Your task to perform on an android device: turn notification dots on Image 0: 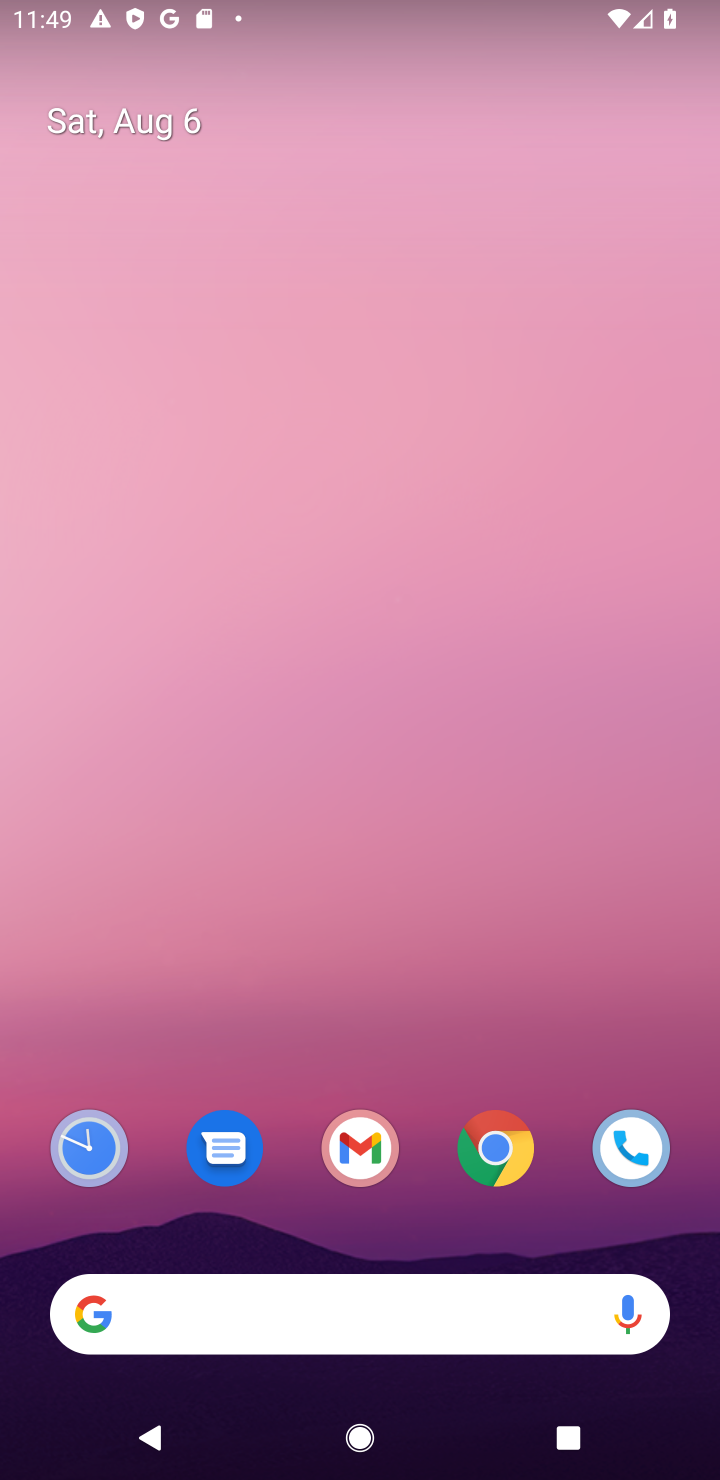
Step 0: drag from (354, 991) to (493, 179)
Your task to perform on an android device: turn notification dots on Image 1: 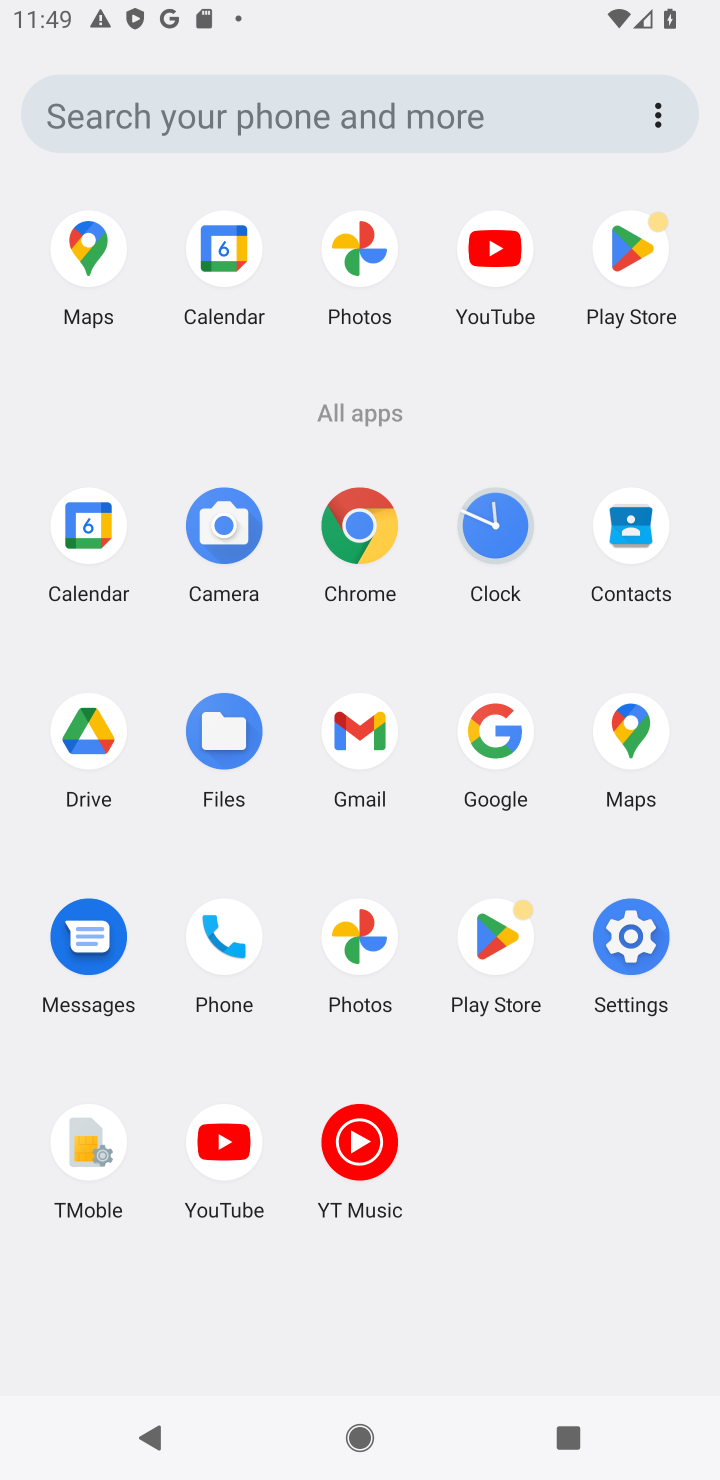
Step 1: click (632, 936)
Your task to perform on an android device: turn notification dots on Image 2: 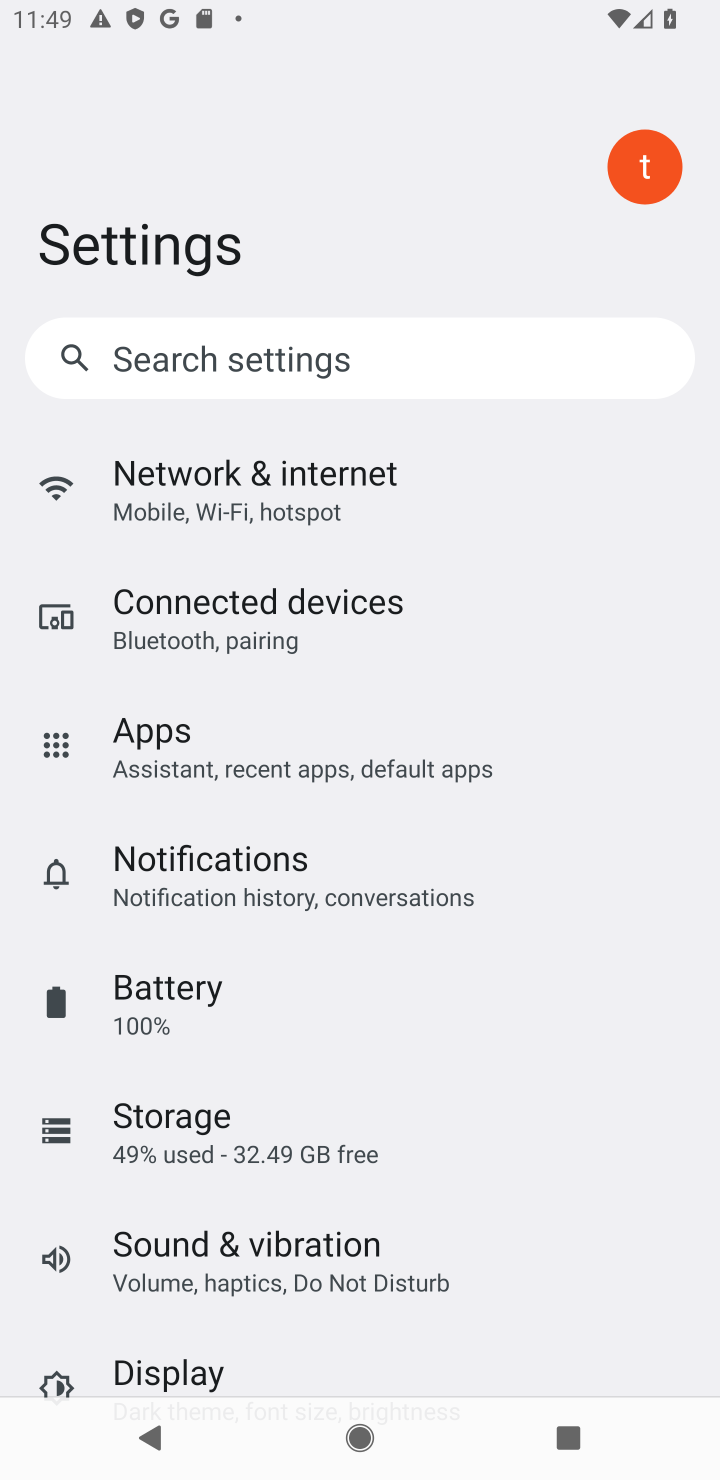
Step 2: click (234, 857)
Your task to perform on an android device: turn notification dots on Image 3: 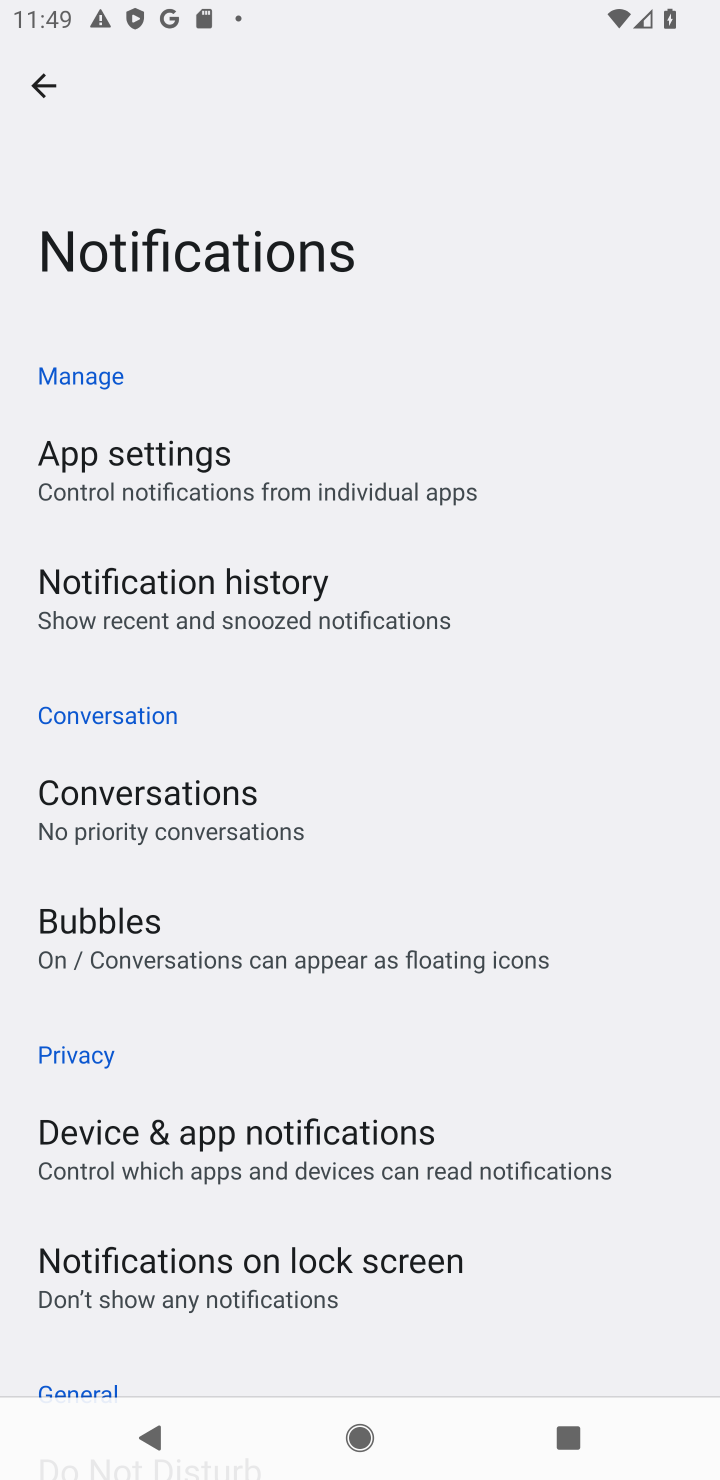
Step 3: task complete